Your task to perform on an android device: Open the Play Movies app and select the watchlist tab. Image 0: 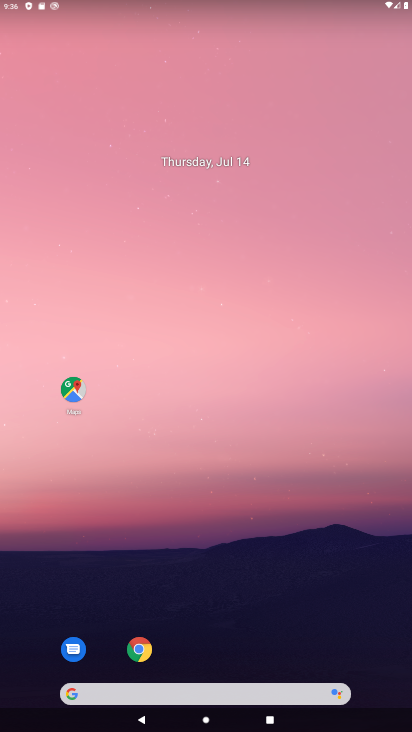
Step 0: drag from (229, 648) to (237, 206)
Your task to perform on an android device: Open the Play Movies app and select the watchlist tab. Image 1: 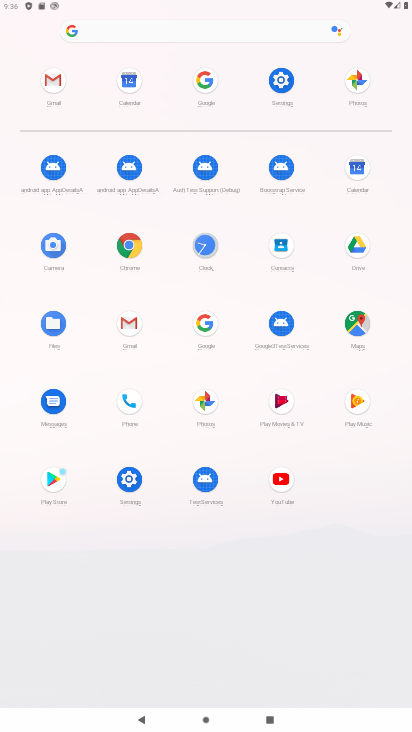
Step 1: click (295, 414)
Your task to perform on an android device: Open the Play Movies app and select the watchlist tab. Image 2: 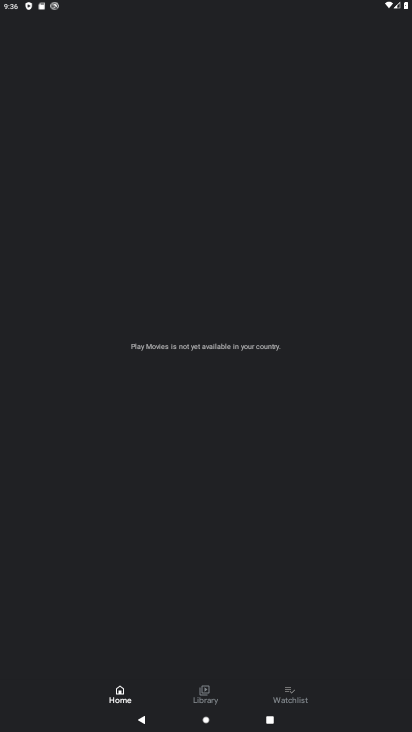
Step 2: click (281, 684)
Your task to perform on an android device: Open the Play Movies app and select the watchlist tab. Image 3: 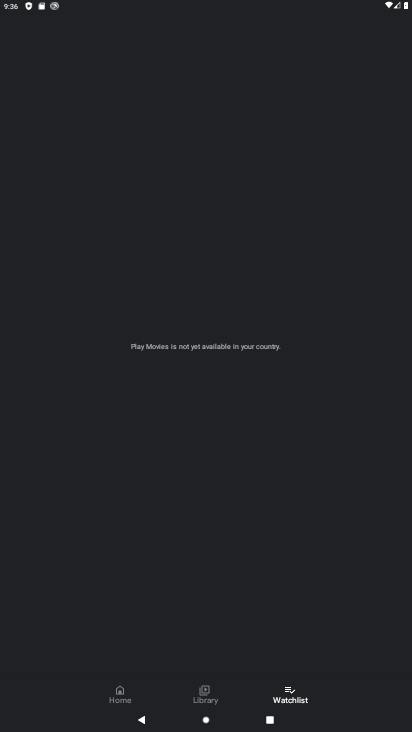
Step 3: task complete